Your task to perform on an android device: turn on javascript in the chrome app Image 0: 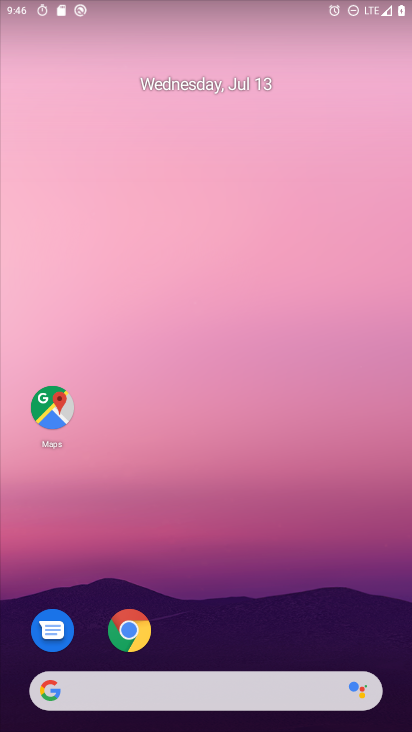
Step 0: drag from (389, 676) to (289, 47)
Your task to perform on an android device: turn on javascript in the chrome app Image 1: 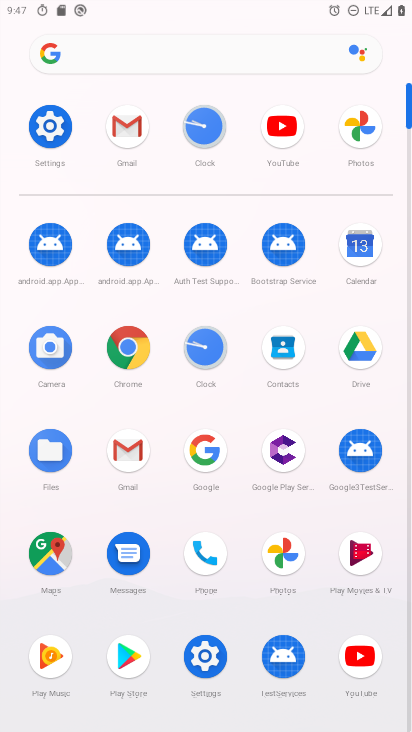
Step 1: click (131, 332)
Your task to perform on an android device: turn on javascript in the chrome app Image 2: 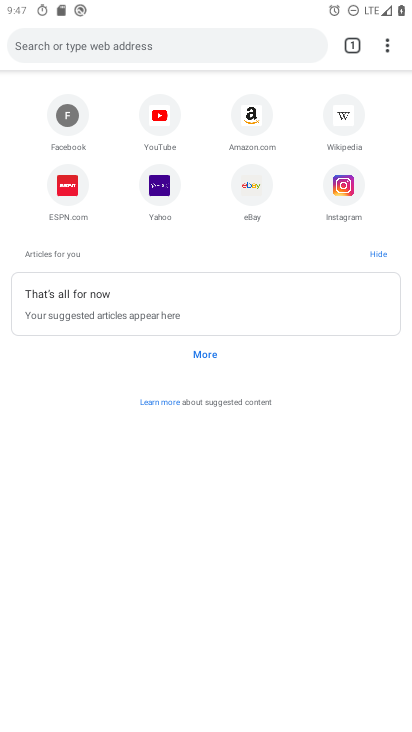
Step 2: click (387, 44)
Your task to perform on an android device: turn on javascript in the chrome app Image 3: 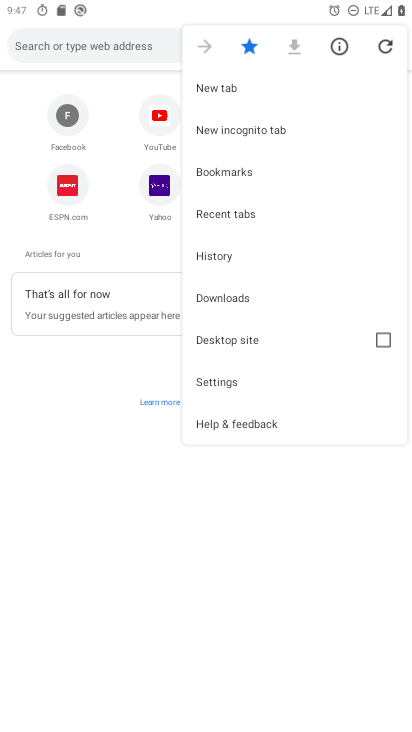
Step 3: click (219, 386)
Your task to perform on an android device: turn on javascript in the chrome app Image 4: 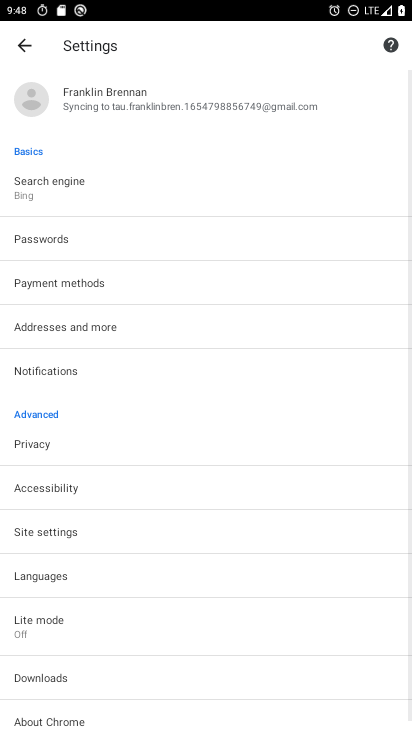
Step 4: click (102, 534)
Your task to perform on an android device: turn on javascript in the chrome app Image 5: 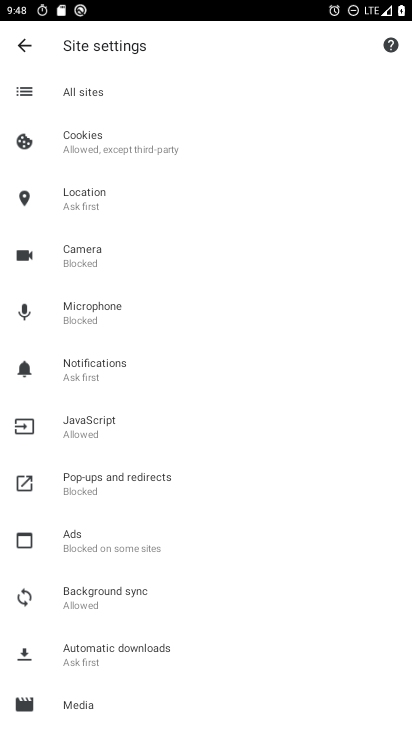
Step 5: click (100, 436)
Your task to perform on an android device: turn on javascript in the chrome app Image 6: 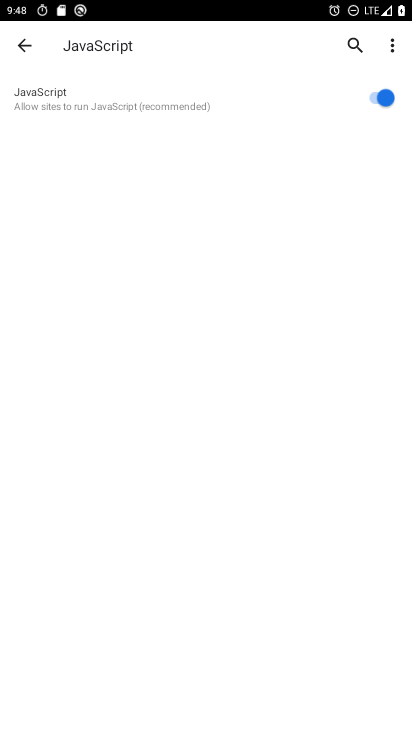
Step 6: task complete